Your task to perform on an android device: Open calendar and show me the fourth week of next month Image 0: 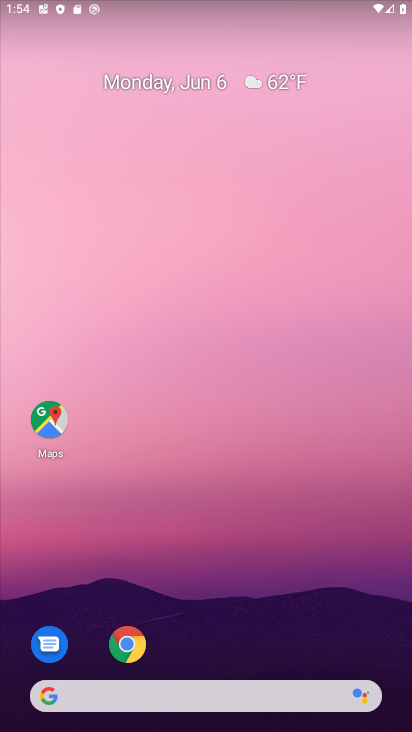
Step 0: drag from (124, 583) to (117, 127)
Your task to perform on an android device: Open calendar and show me the fourth week of next month Image 1: 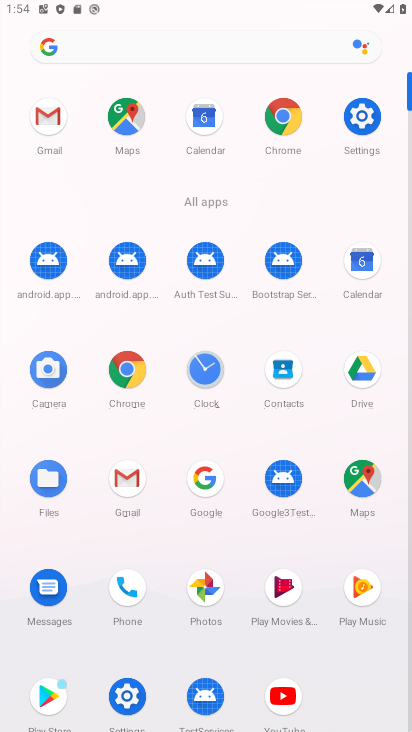
Step 1: click (191, 116)
Your task to perform on an android device: Open calendar and show me the fourth week of next month Image 2: 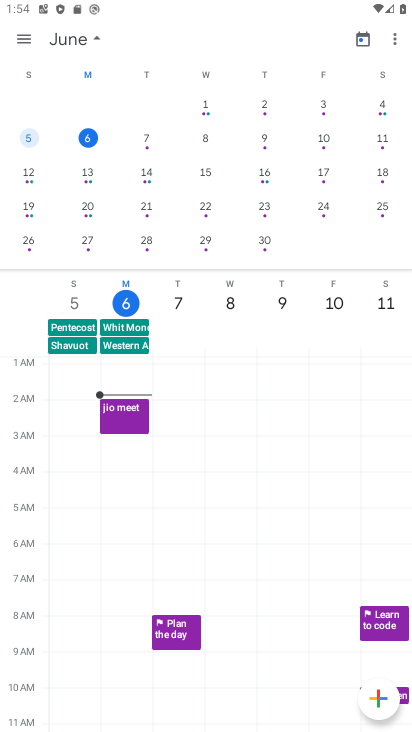
Step 2: drag from (373, 241) to (22, 201)
Your task to perform on an android device: Open calendar and show me the fourth week of next month Image 3: 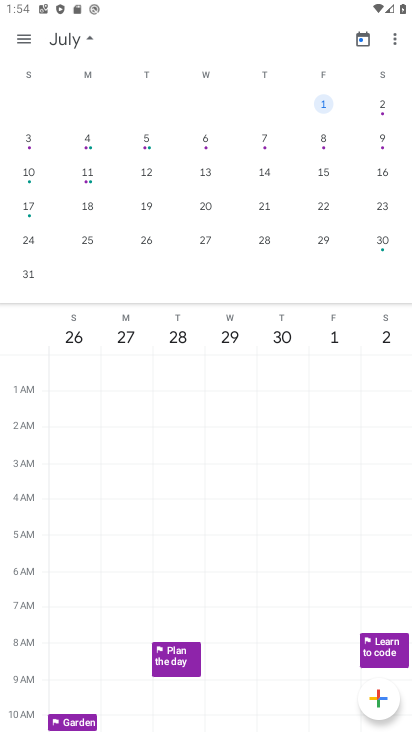
Step 3: click (88, 41)
Your task to perform on an android device: Open calendar and show me the fourth week of next month Image 4: 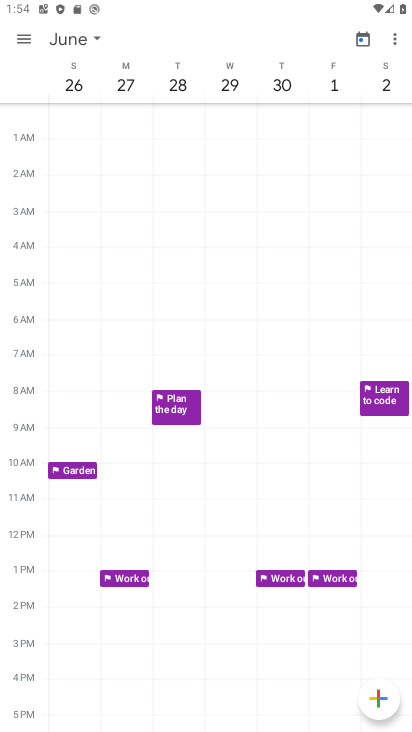
Step 4: task complete